Your task to perform on an android device: change notification settings in the gmail app Image 0: 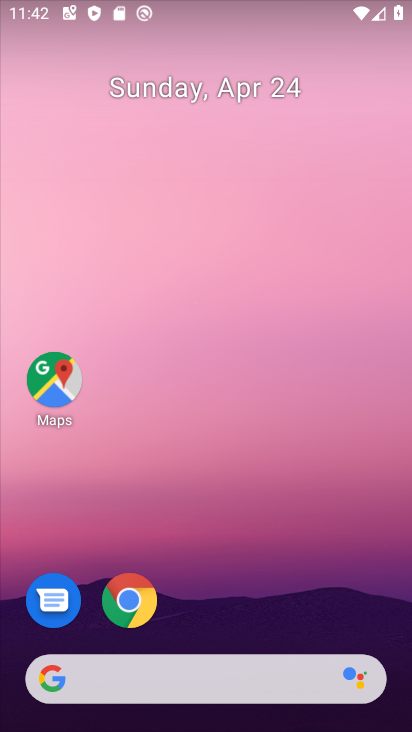
Step 0: drag from (230, 707) to (194, 250)
Your task to perform on an android device: change notification settings in the gmail app Image 1: 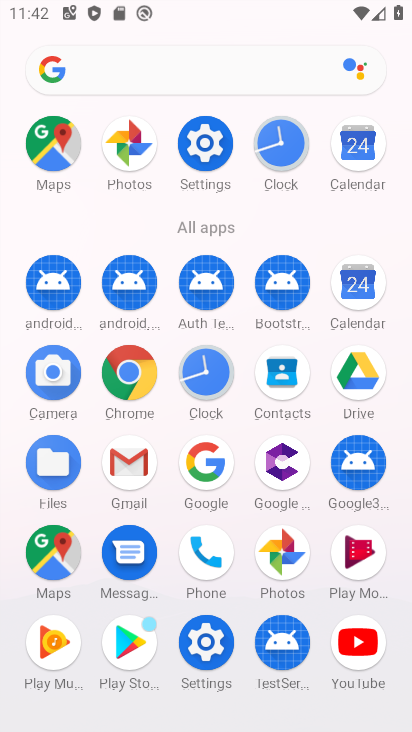
Step 1: click (133, 471)
Your task to perform on an android device: change notification settings in the gmail app Image 2: 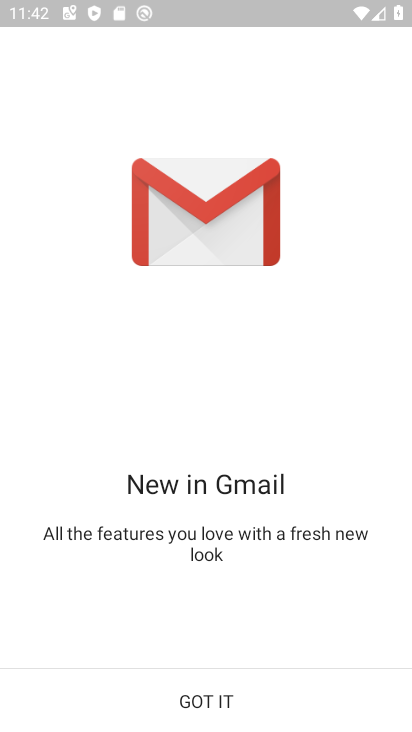
Step 2: click (219, 700)
Your task to perform on an android device: change notification settings in the gmail app Image 3: 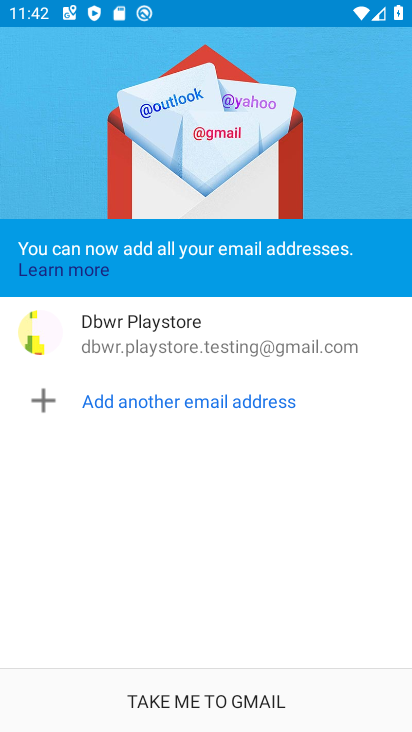
Step 3: click (215, 709)
Your task to perform on an android device: change notification settings in the gmail app Image 4: 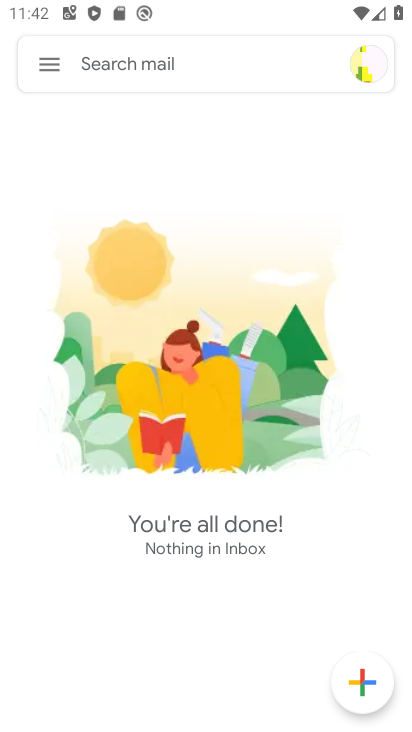
Step 4: click (43, 67)
Your task to perform on an android device: change notification settings in the gmail app Image 5: 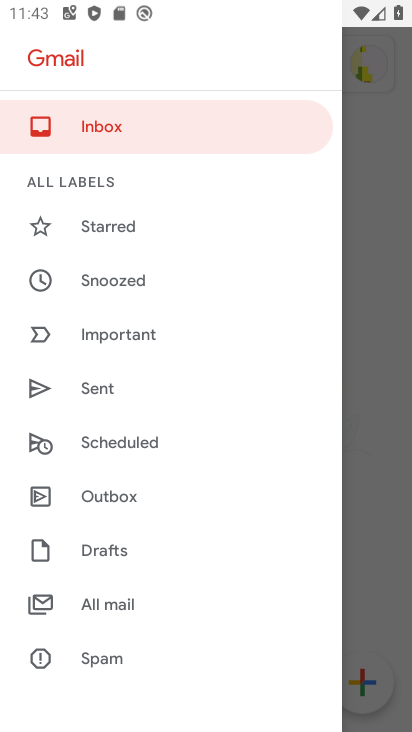
Step 5: drag from (123, 641) to (127, 434)
Your task to perform on an android device: change notification settings in the gmail app Image 6: 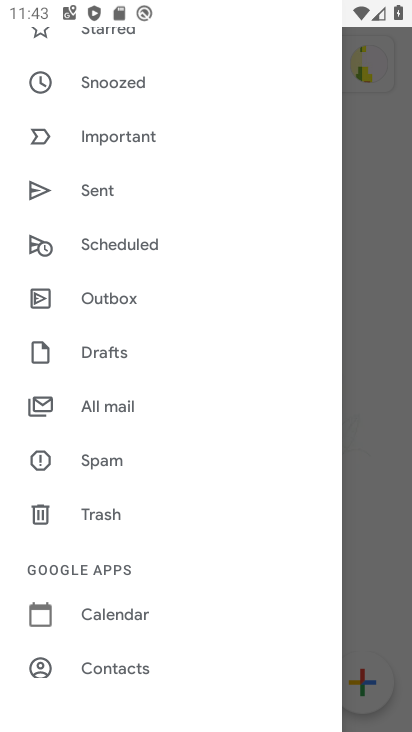
Step 6: drag from (129, 642) to (150, 424)
Your task to perform on an android device: change notification settings in the gmail app Image 7: 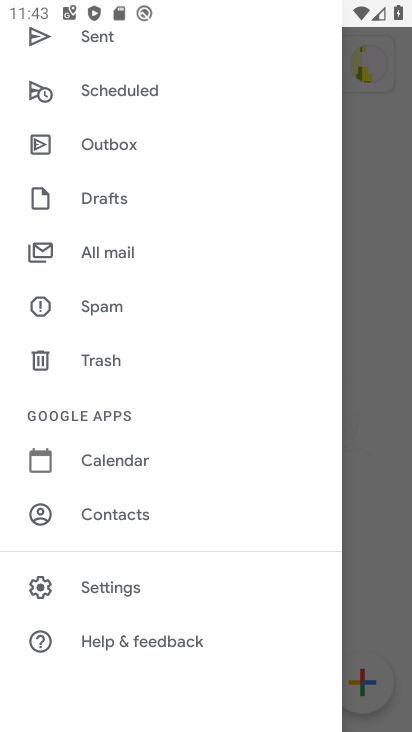
Step 7: click (137, 585)
Your task to perform on an android device: change notification settings in the gmail app Image 8: 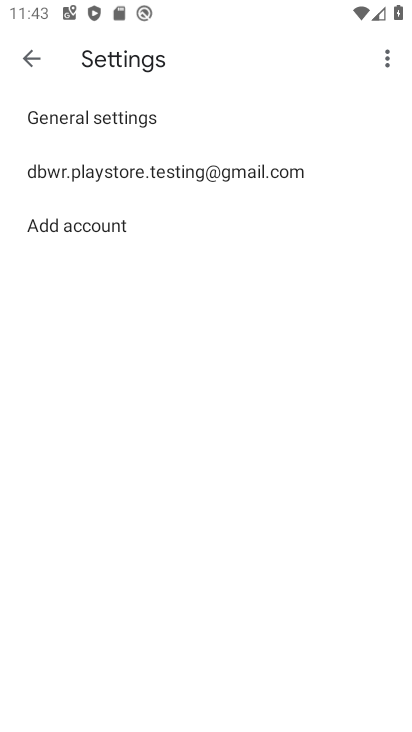
Step 8: click (109, 113)
Your task to perform on an android device: change notification settings in the gmail app Image 9: 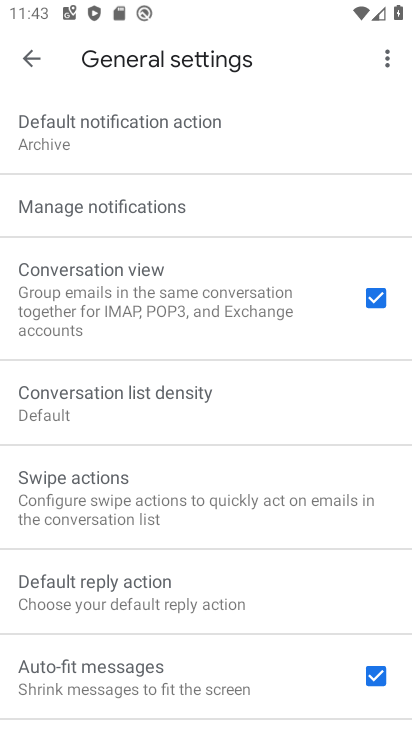
Step 9: task complete